Your task to perform on an android device: check storage Image 0: 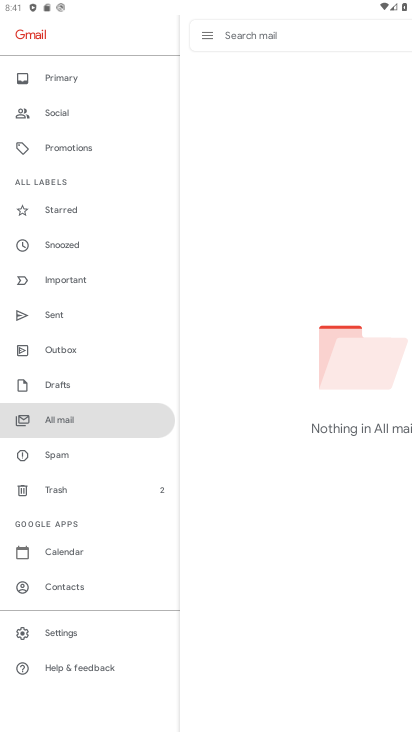
Step 0: press home button
Your task to perform on an android device: check storage Image 1: 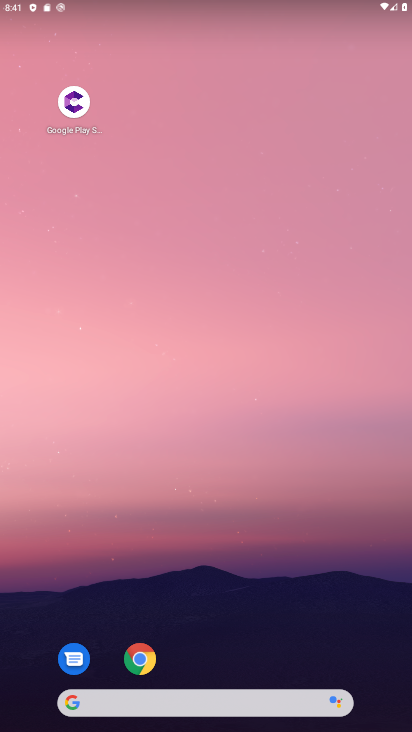
Step 1: drag from (275, 633) to (287, 52)
Your task to perform on an android device: check storage Image 2: 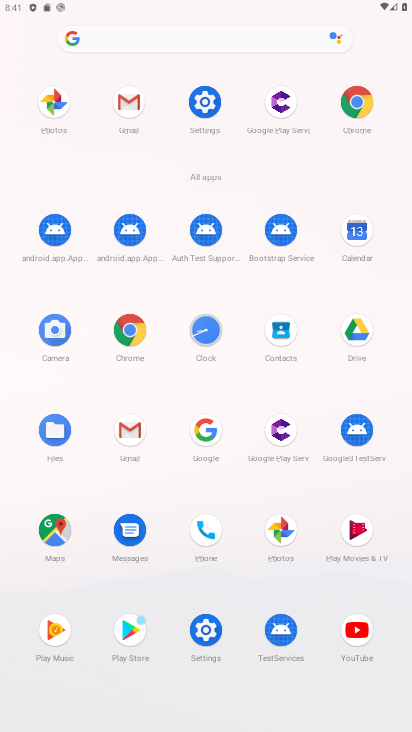
Step 2: click (203, 97)
Your task to perform on an android device: check storage Image 3: 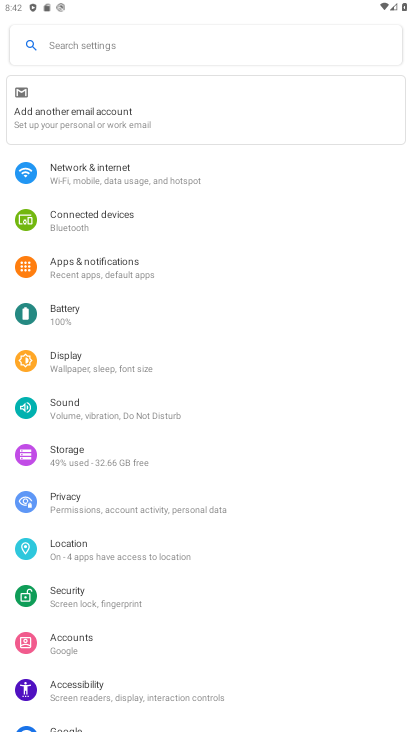
Step 3: click (85, 451)
Your task to perform on an android device: check storage Image 4: 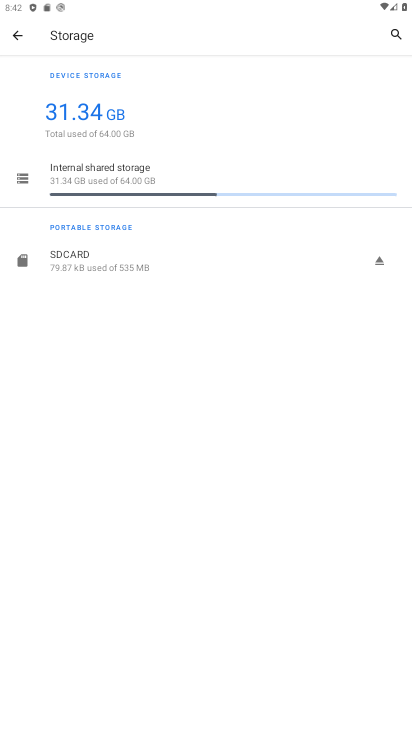
Step 4: task complete